Your task to perform on an android device: What is the news today? Image 0: 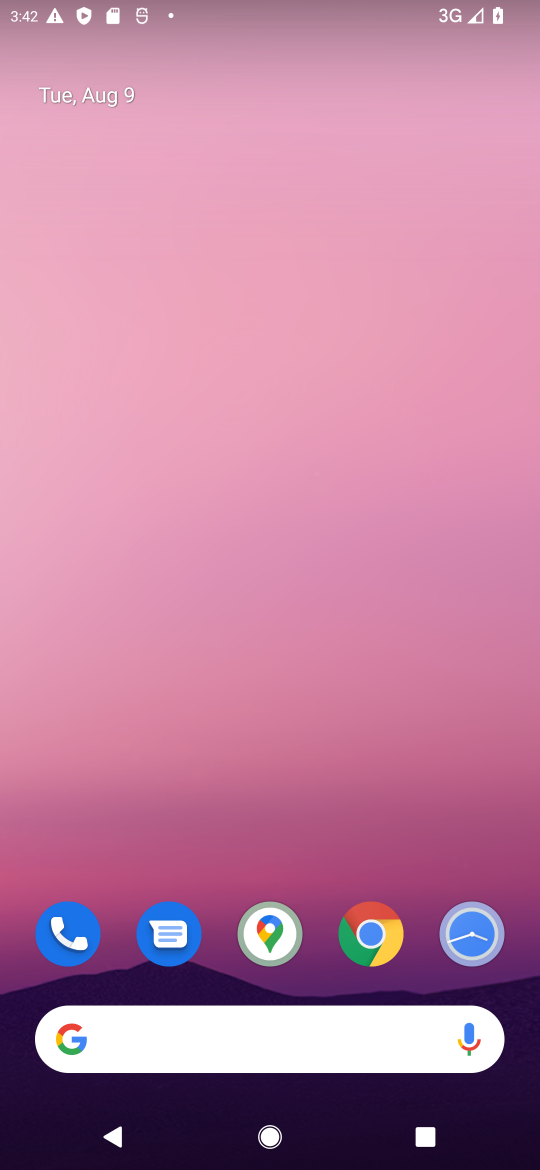
Step 0: drag from (327, 986) to (425, 138)
Your task to perform on an android device: What is the news today? Image 1: 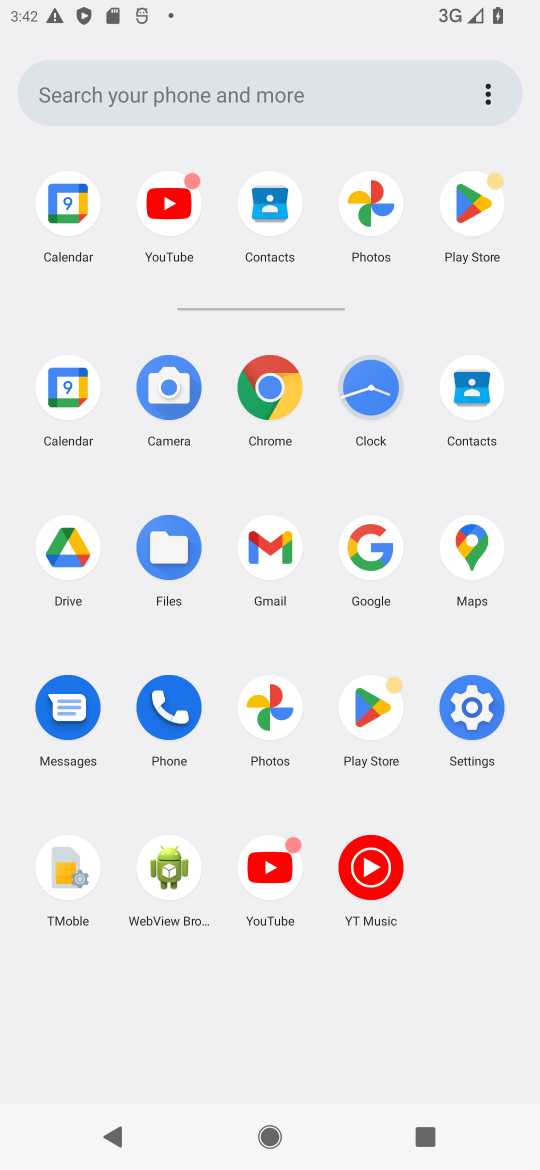
Step 1: click (300, 124)
Your task to perform on an android device: What is the news today? Image 2: 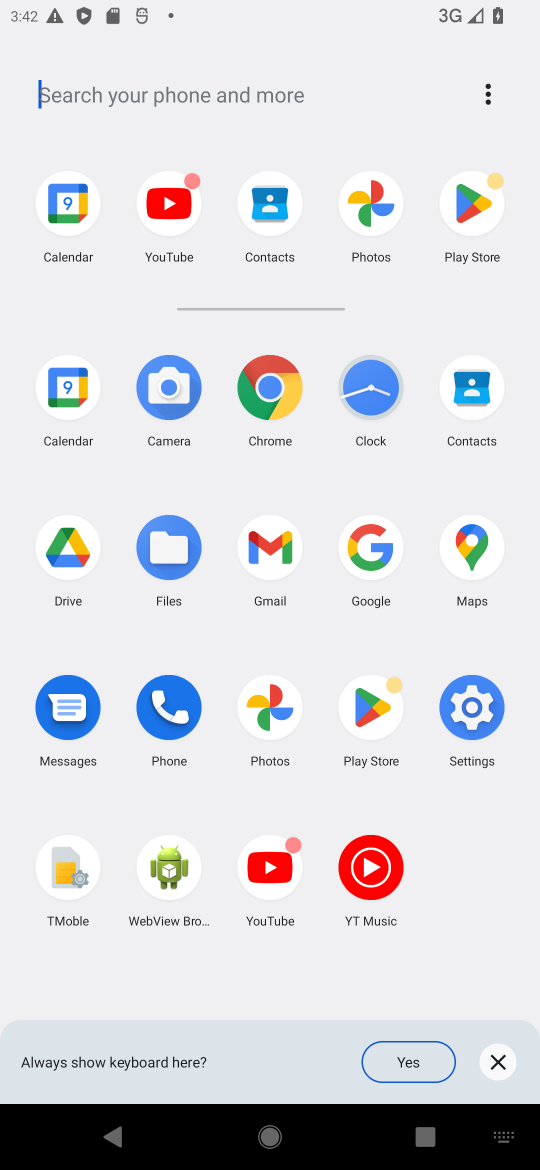
Step 2: type "news"
Your task to perform on an android device: What is the news today? Image 3: 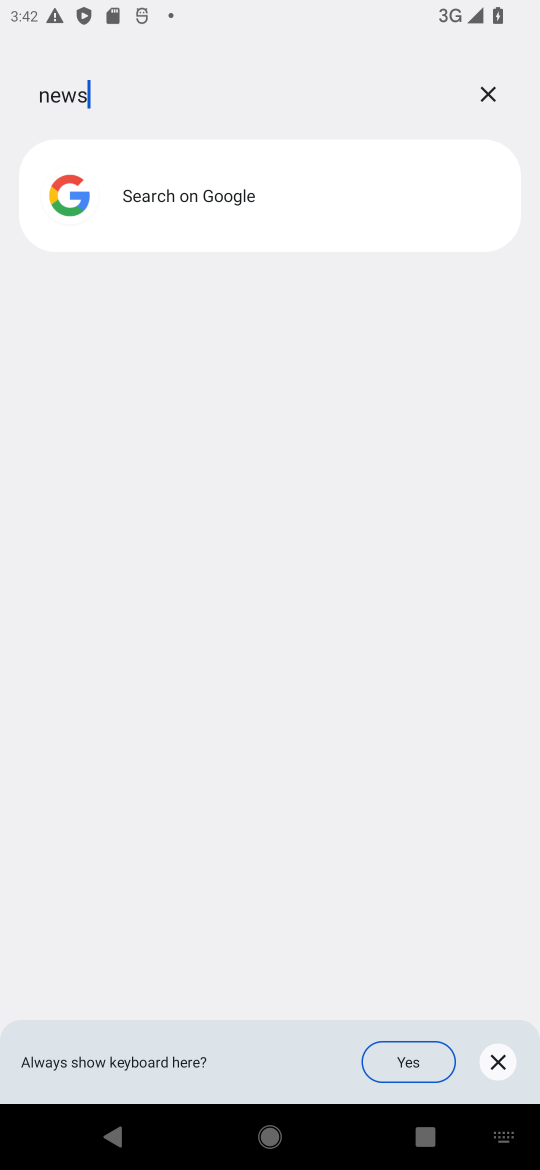
Step 3: task complete